Your task to perform on an android device: Open Google Chrome Image 0: 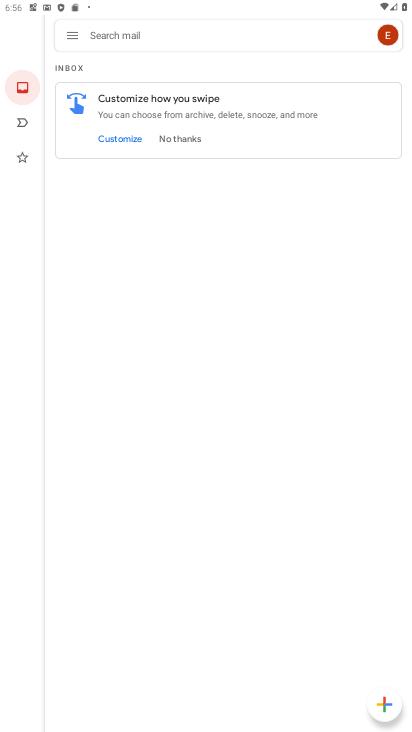
Step 0: press home button
Your task to perform on an android device: Open Google Chrome Image 1: 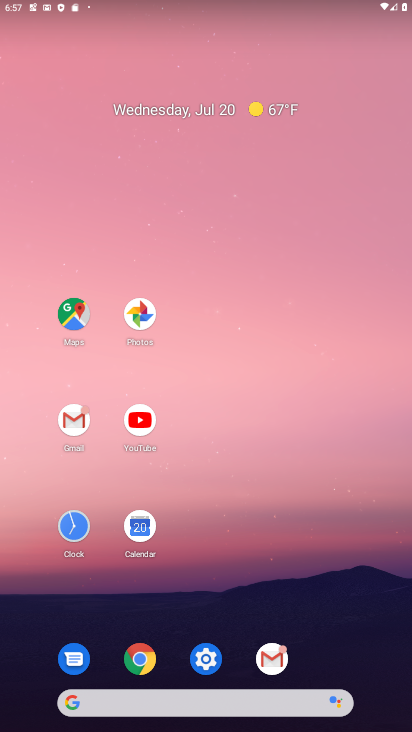
Step 1: click (140, 663)
Your task to perform on an android device: Open Google Chrome Image 2: 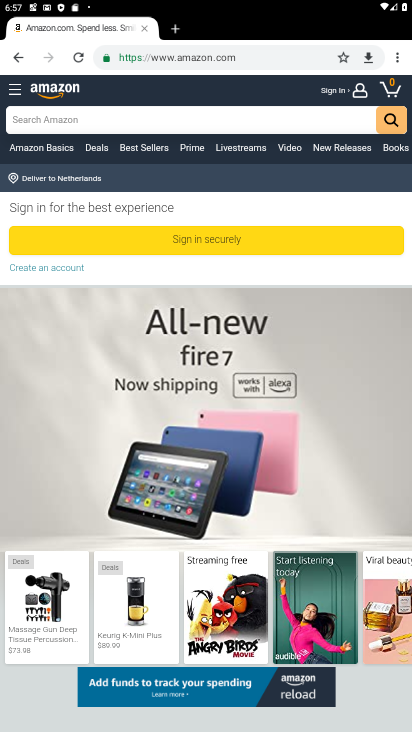
Step 2: task complete